Your task to perform on an android device: Go to Wikipedia Image 0: 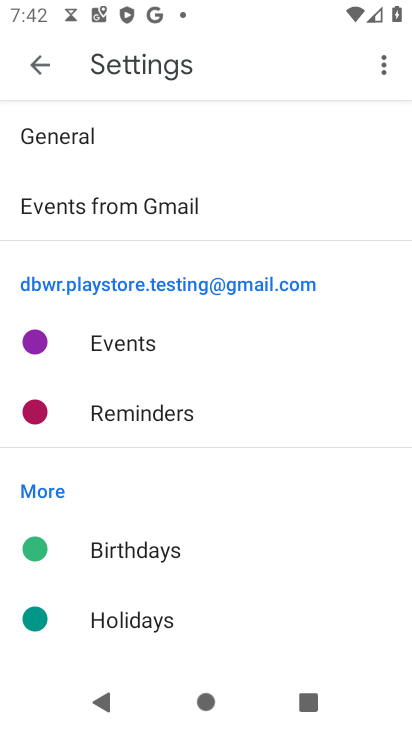
Step 0: press home button
Your task to perform on an android device: Go to Wikipedia Image 1: 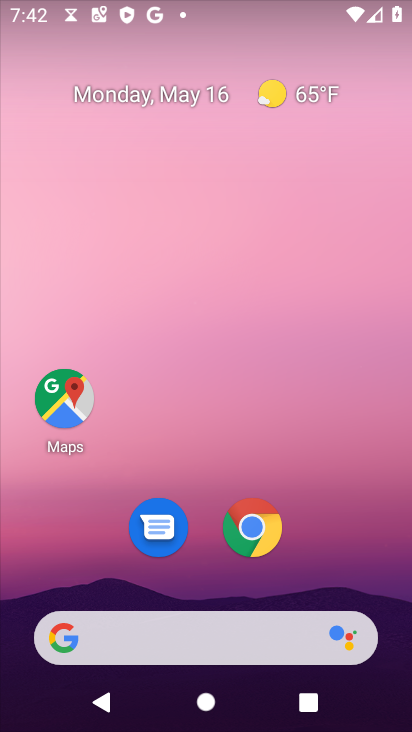
Step 1: drag from (330, 567) to (366, 262)
Your task to perform on an android device: Go to Wikipedia Image 2: 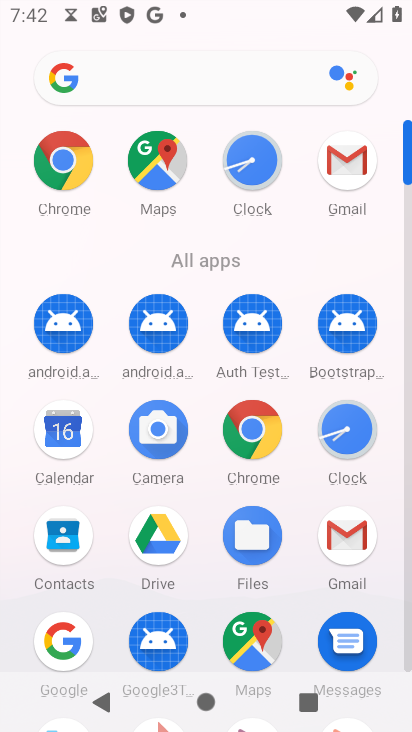
Step 2: click (247, 410)
Your task to perform on an android device: Go to Wikipedia Image 3: 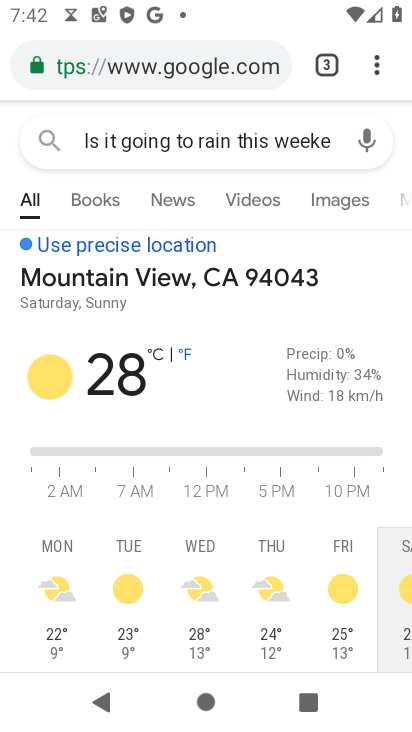
Step 3: click (360, 59)
Your task to perform on an android device: Go to Wikipedia Image 4: 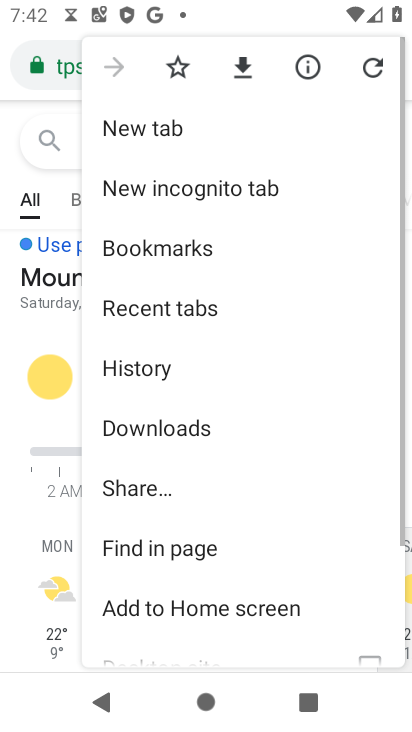
Step 4: click (189, 133)
Your task to perform on an android device: Go to Wikipedia Image 5: 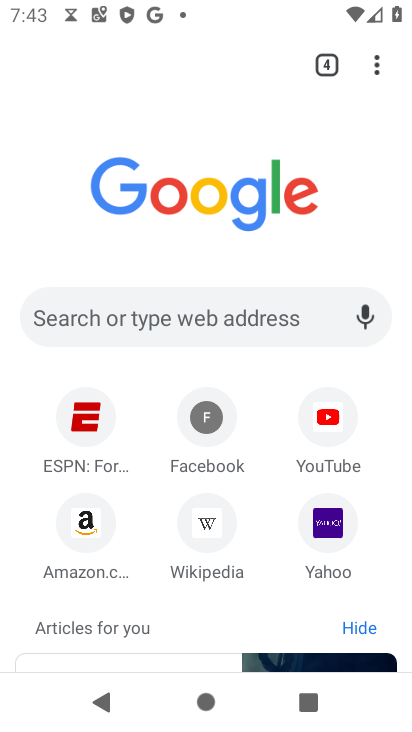
Step 5: click (206, 532)
Your task to perform on an android device: Go to Wikipedia Image 6: 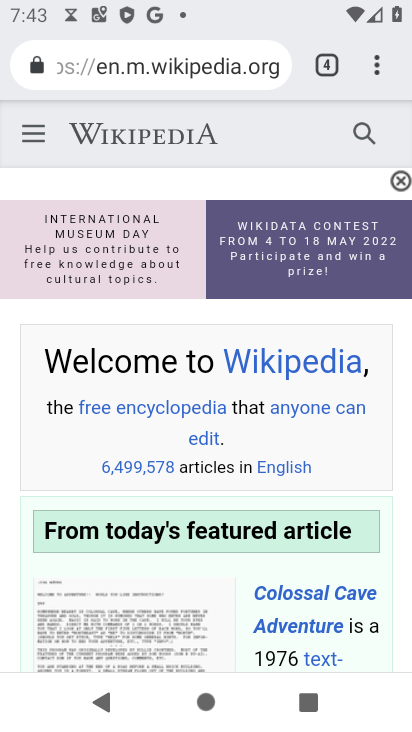
Step 6: task complete